Your task to perform on an android device: Search for Mexican restaurants on Maps Image 0: 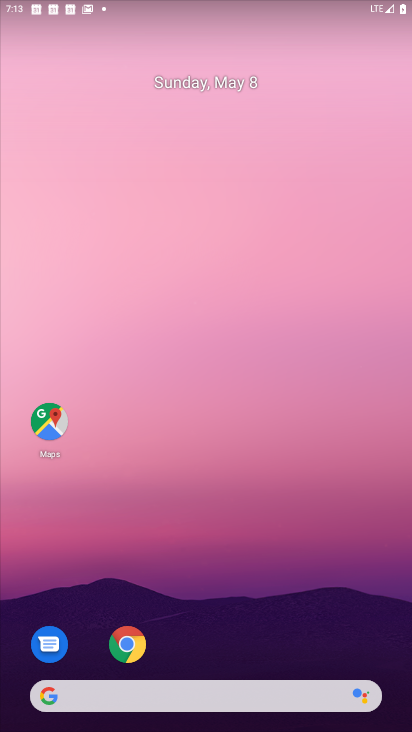
Step 0: drag from (296, 612) to (239, 297)
Your task to perform on an android device: Search for Mexican restaurants on Maps Image 1: 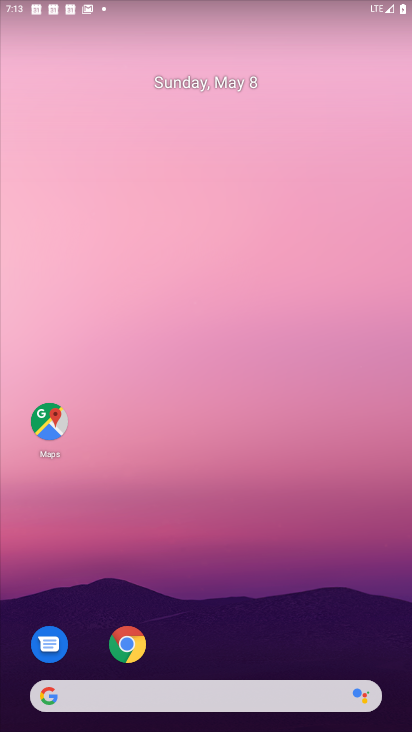
Step 1: click (50, 428)
Your task to perform on an android device: Search for Mexican restaurants on Maps Image 2: 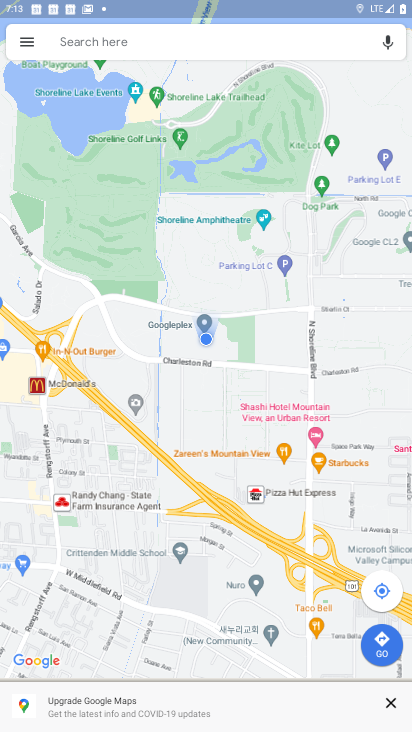
Step 2: click (192, 40)
Your task to perform on an android device: Search for Mexican restaurants on Maps Image 3: 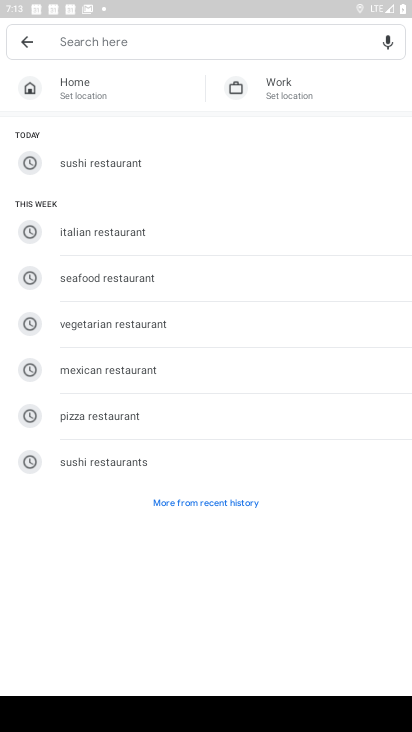
Step 3: click (89, 387)
Your task to perform on an android device: Search for Mexican restaurants on Maps Image 4: 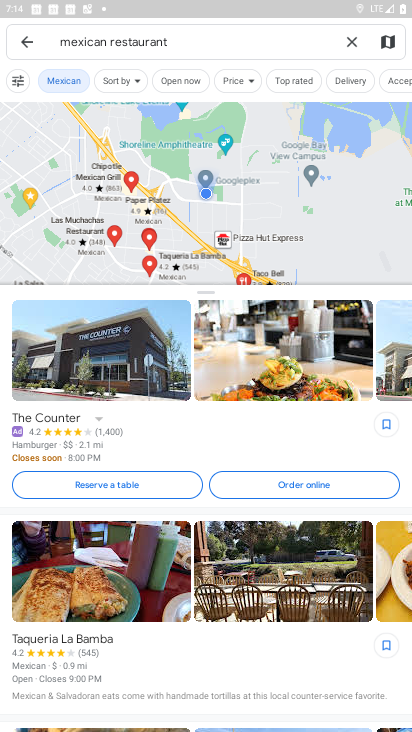
Step 4: task complete